Your task to perform on an android device: Toggle the flashlight Image 0: 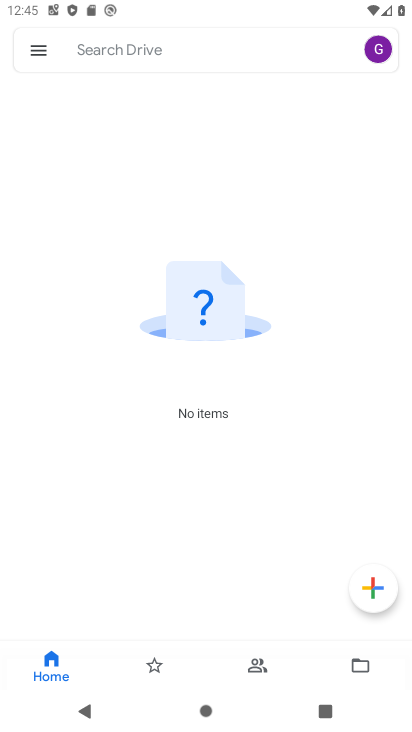
Step 0: drag from (276, 5) to (227, 626)
Your task to perform on an android device: Toggle the flashlight Image 1: 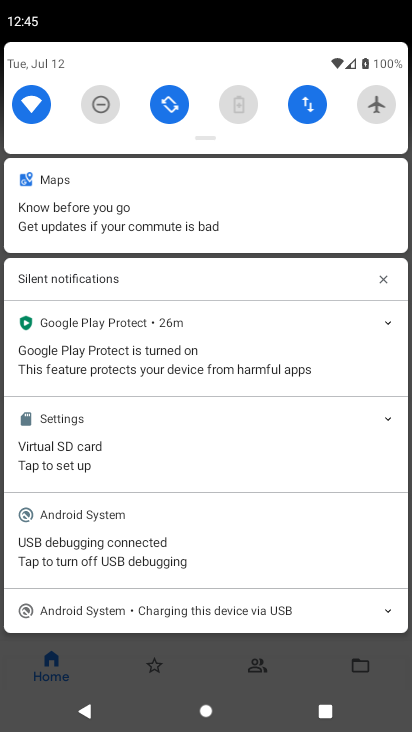
Step 1: drag from (162, 106) to (159, 457)
Your task to perform on an android device: Toggle the flashlight Image 2: 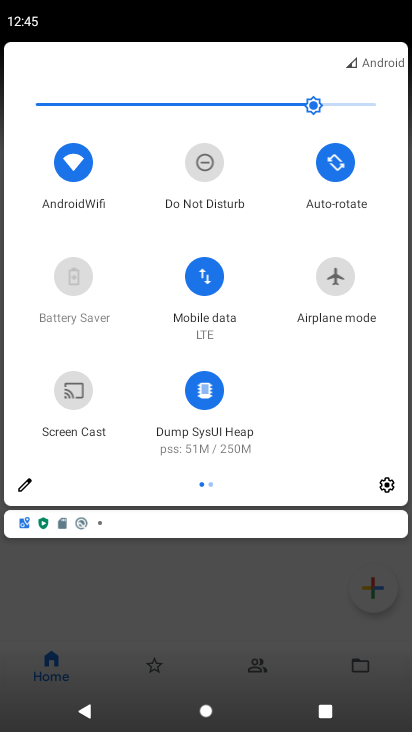
Step 2: drag from (331, 371) to (3, 472)
Your task to perform on an android device: Toggle the flashlight Image 3: 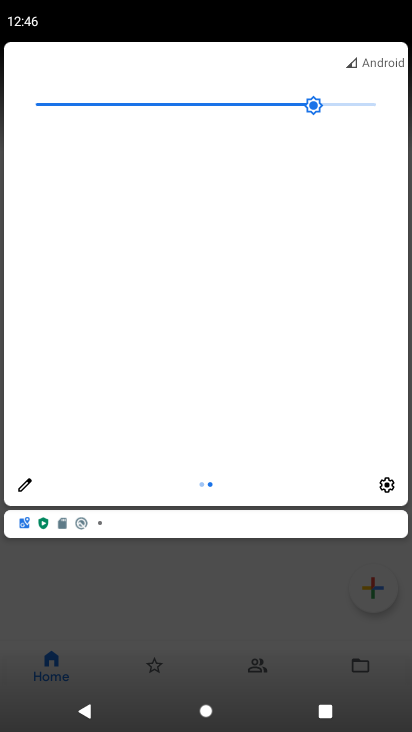
Step 3: click (18, 487)
Your task to perform on an android device: Toggle the flashlight Image 4: 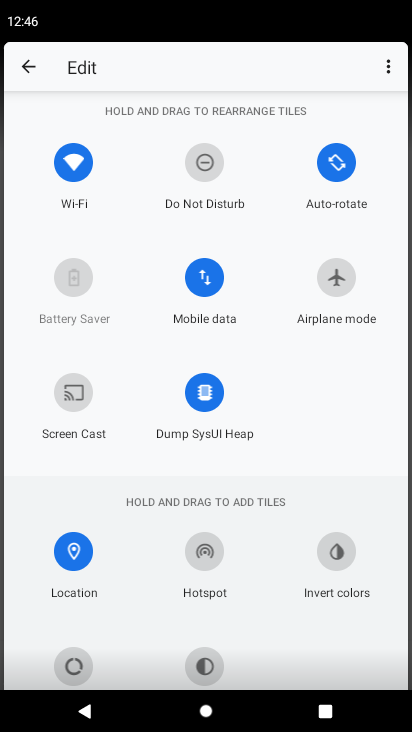
Step 4: task complete